Your task to perform on an android device: toggle notifications settings in the gmail app Image 0: 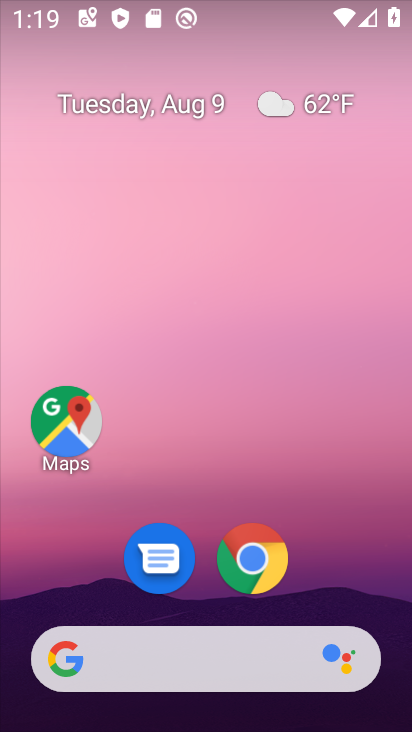
Step 0: drag from (350, 586) to (309, 142)
Your task to perform on an android device: toggle notifications settings in the gmail app Image 1: 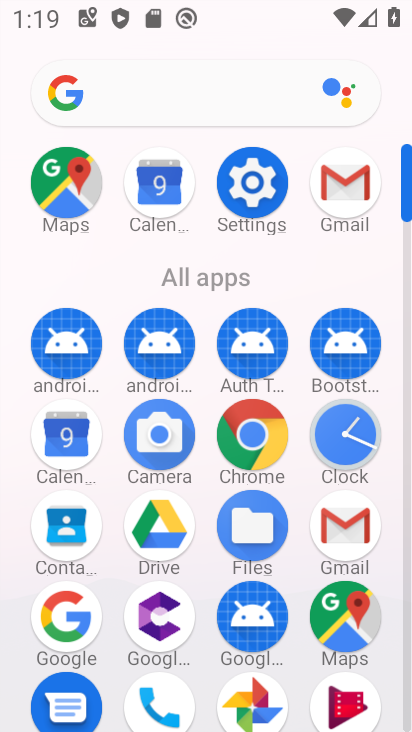
Step 1: click (343, 522)
Your task to perform on an android device: toggle notifications settings in the gmail app Image 2: 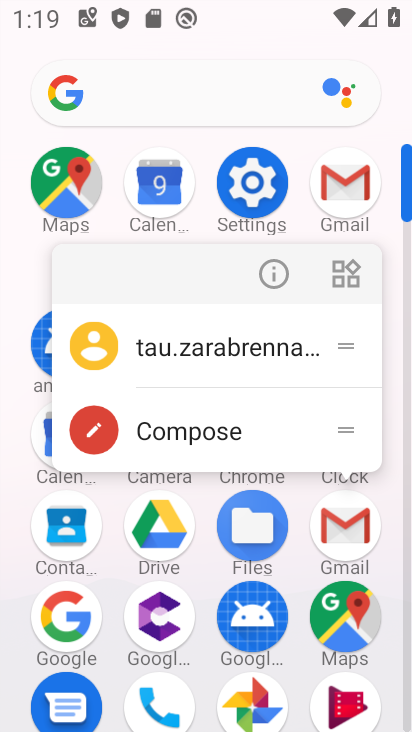
Step 2: click (271, 268)
Your task to perform on an android device: toggle notifications settings in the gmail app Image 3: 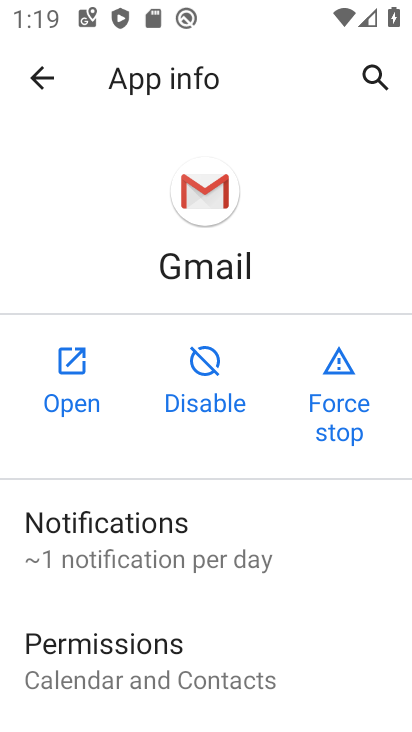
Step 3: click (272, 541)
Your task to perform on an android device: toggle notifications settings in the gmail app Image 4: 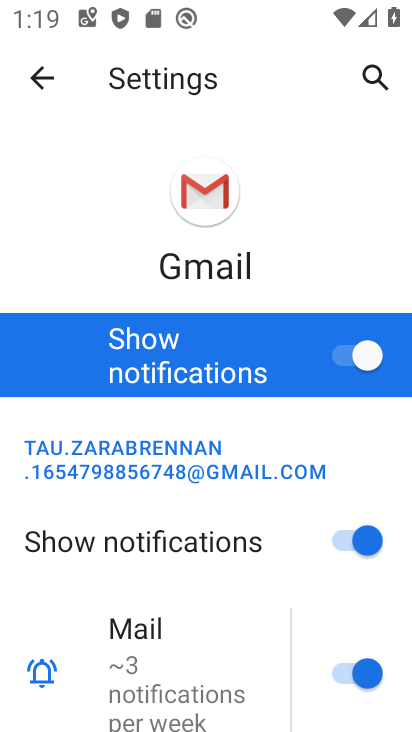
Step 4: click (372, 369)
Your task to perform on an android device: toggle notifications settings in the gmail app Image 5: 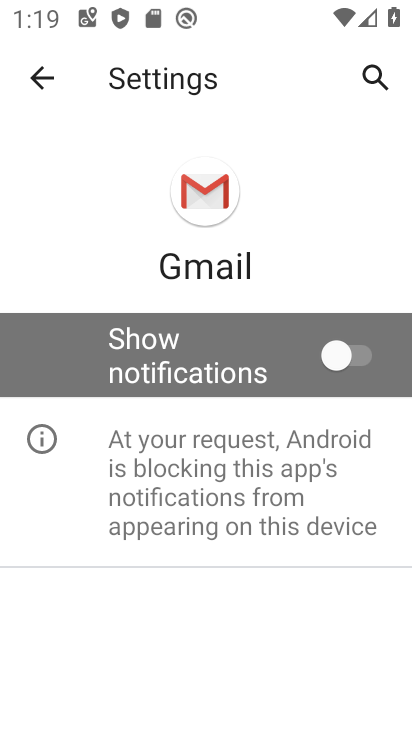
Step 5: task complete